Your task to perform on an android device: Add "bose soundlink" to the cart on bestbuy, then select checkout. Image 0: 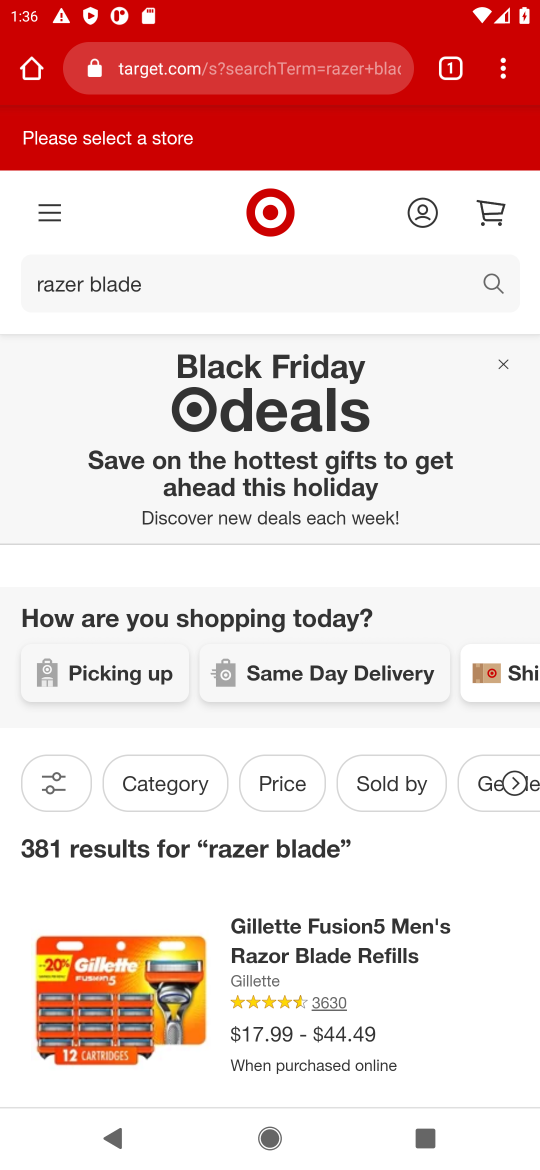
Step 0: task impossible